Your task to perform on an android device: turn on airplane mode Image 0: 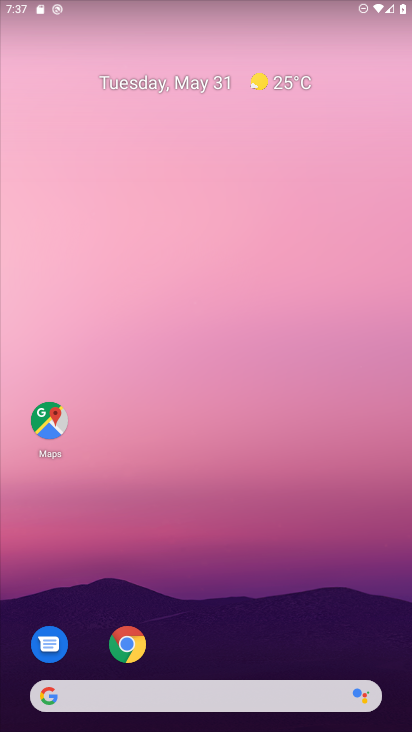
Step 0: drag from (242, 706) to (299, 339)
Your task to perform on an android device: turn on airplane mode Image 1: 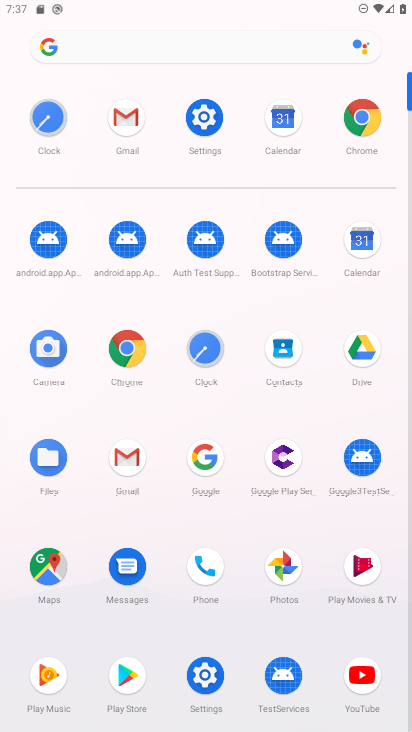
Step 1: click (205, 124)
Your task to perform on an android device: turn on airplane mode Image 2: 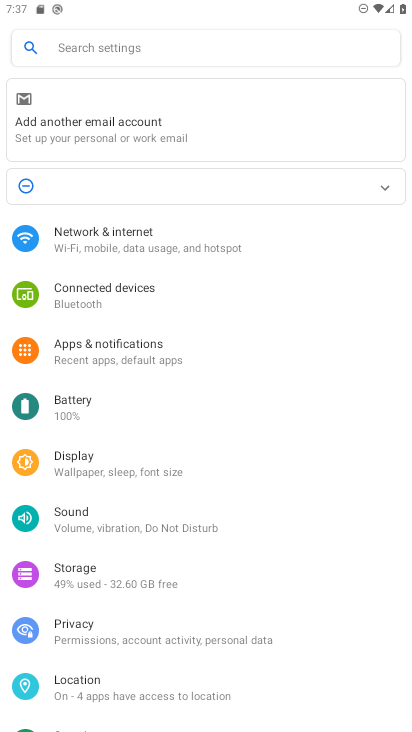
Step 2: click (126, 245)
Your task to perform on an android device: turn on airplane mode Image 3: 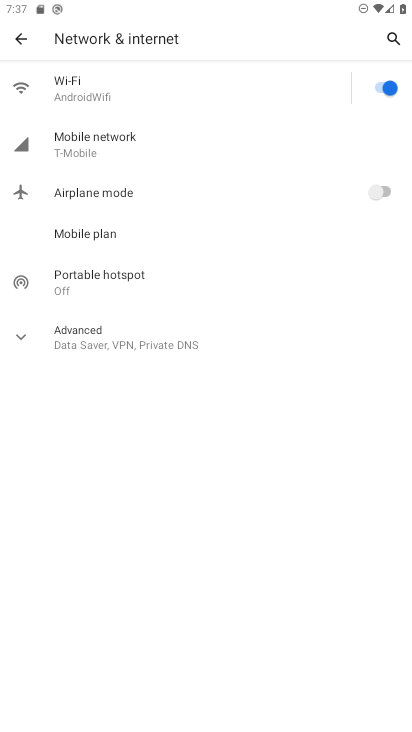
Step 3: click (385, 186)
Your task to perform on an android device: turn on airplane mode Image 4: 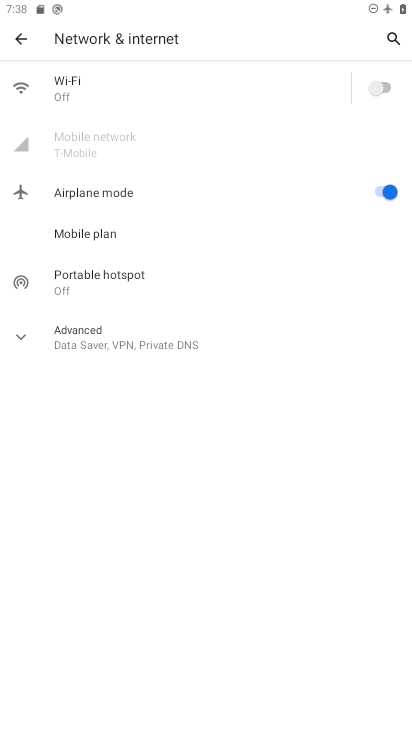
Step 4: task complete